Your task to perform on an android device: Open Yahoo.com Image 0: 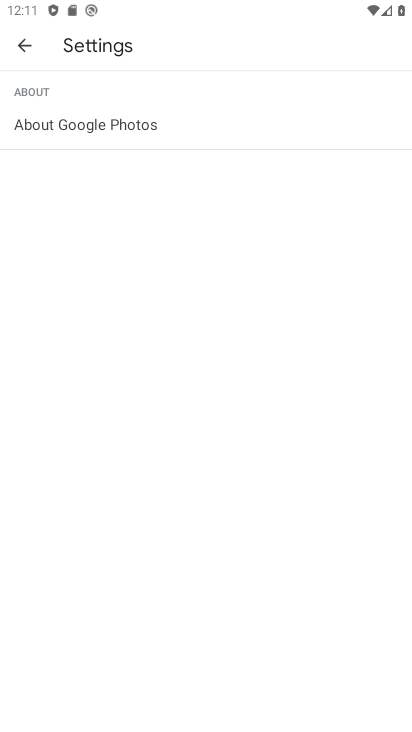
Step 0: press back button
Your task to perform on an android device: Open Yahoo.com Image 1: 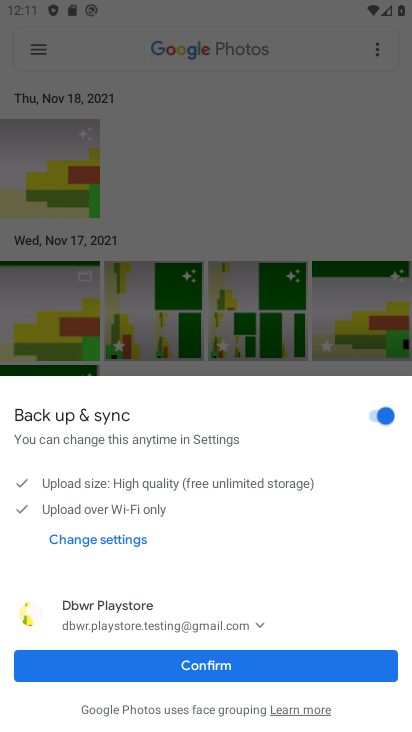
Step 1: press home button
Your task to perform on an android device: Open Yahoo.com Image 2: 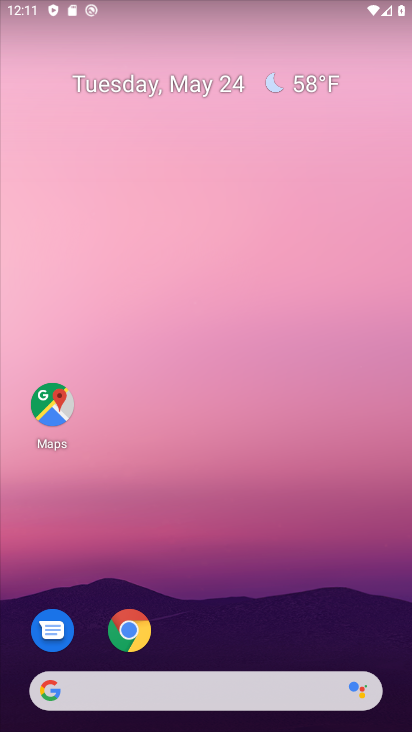
Step 2: click (129, 627)
Your task to perform on an android device: Open Yahoo.com Image 3: 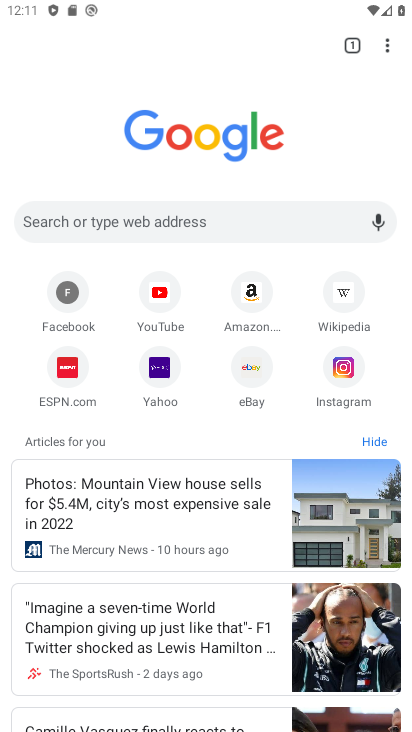
Step 3: click (138, 222)
Your task to perform on an android device: Open Yahoo.com Image 4: 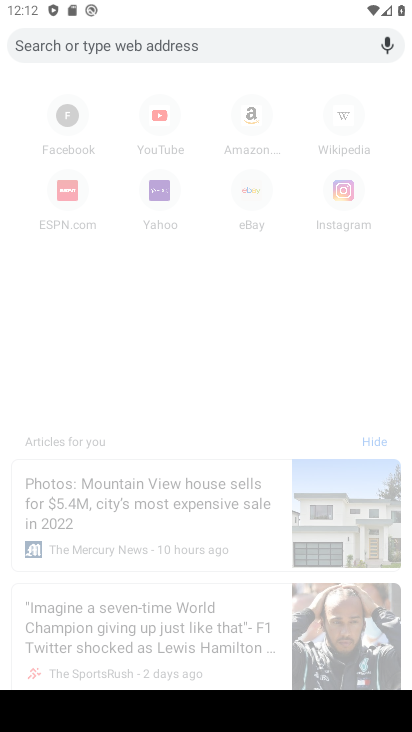
Step 4: type "Yahoo.com"
Your task to perform on an android device: Open Yahoo.com Image 5: 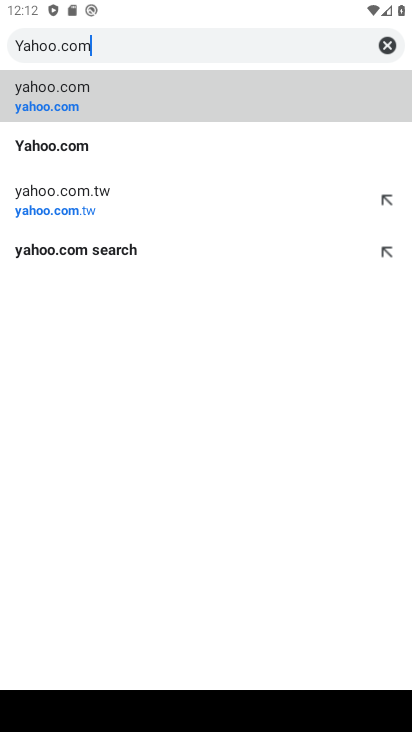
Step 5: type ""
Your task to perform on an android device: Open Yahoo.com Image 6: 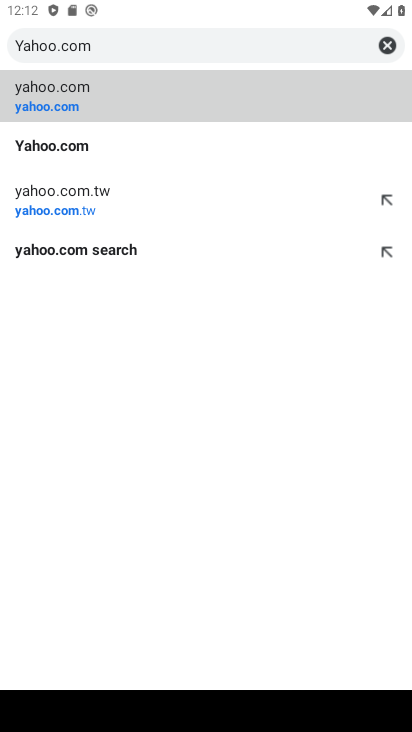
Step 6: click (26, 143)
Your task to perform on an android device: Open Yahoo.com Image 7: 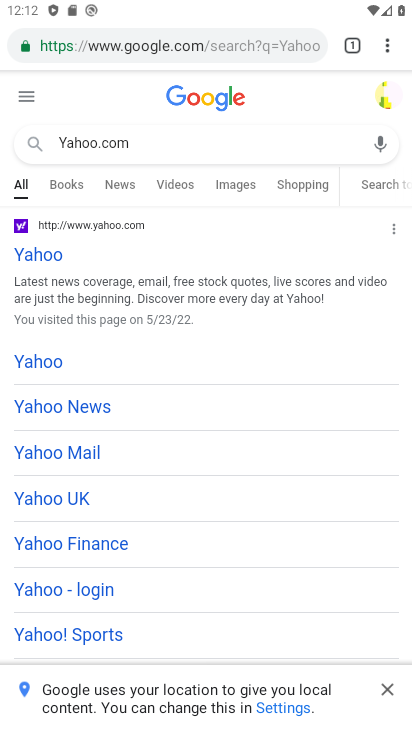
Step 7: click (57, 262)
Your task to perform on an android device: Open Yahoo.com Image 8: 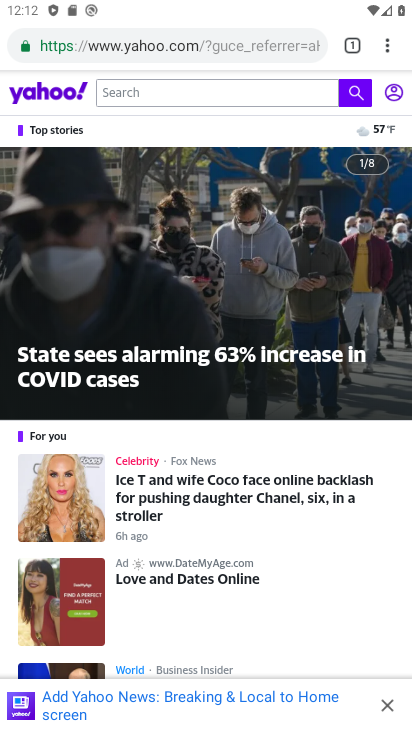
Step 8: task complete